Your task to perform on an android device: Open my contact list Image 0: 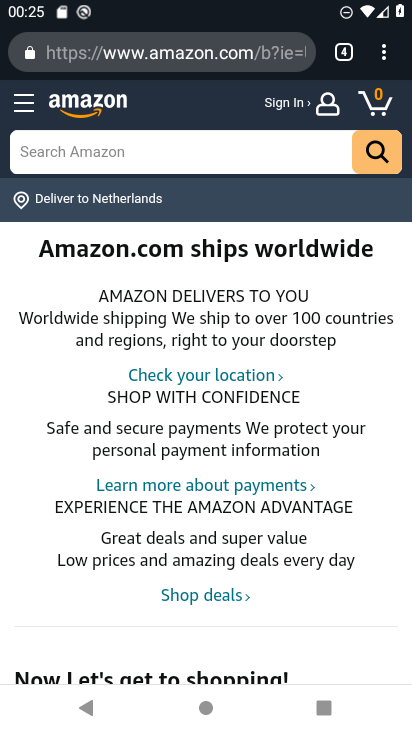
Step 0: press home button
Your task to perform on an android device: Open my contact list Image 1: 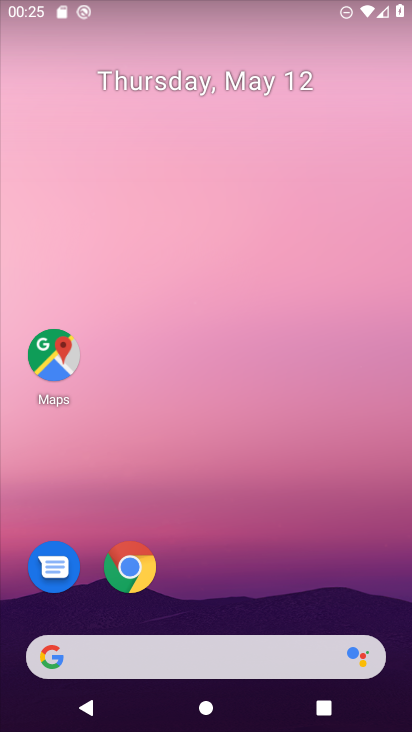
Step 1: drag from (257, 647) to (253, 6)
Your task to perform on an android device: Open my contact list Image 2: 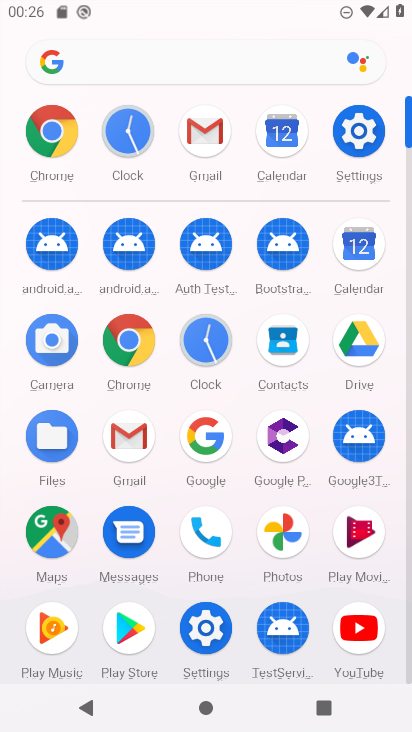
Step 2: click (277, 340)
Your task to perform on an android device: Open my contact list Image 3: 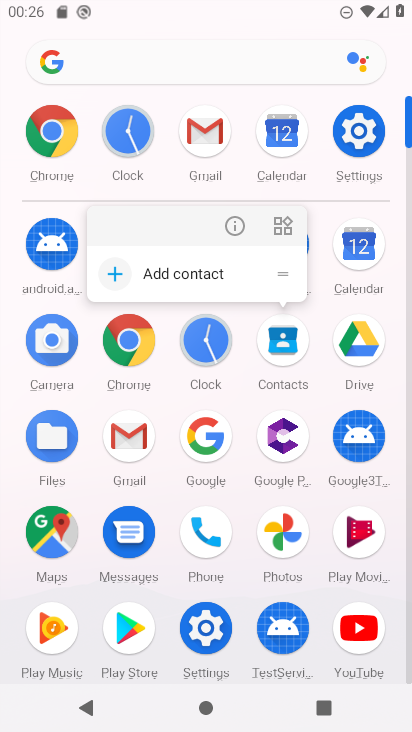
Step 3: click (277, 340)
Your task to perform on an android device: Open my contact list Image 4: 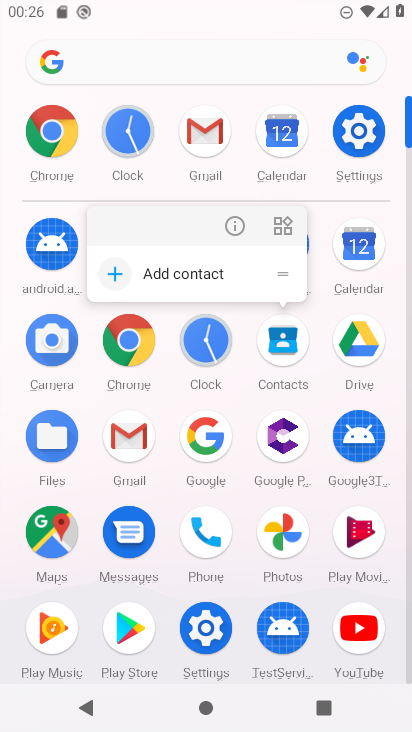
Step 4: click (277, 340)
Your task to perform on an android device: Open my contact list Image 5: 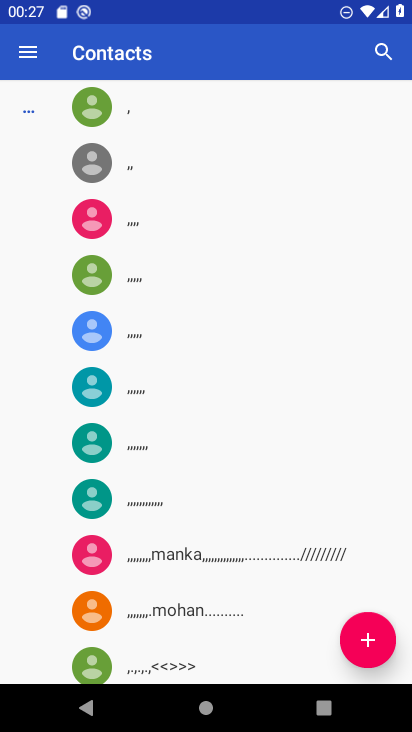
Step 5: task complete